Your task to perform on an android device: Find coffee shops on Maps Image 0: 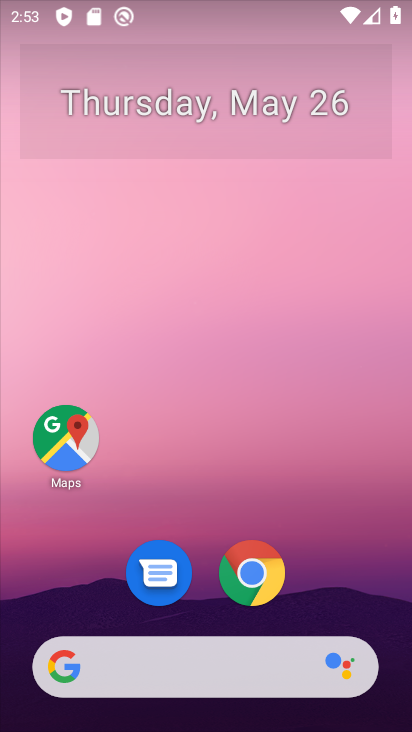
Step 0: click (60, 462)
Your task to perform on an android device: Find coffee shops on Maps Image 1: 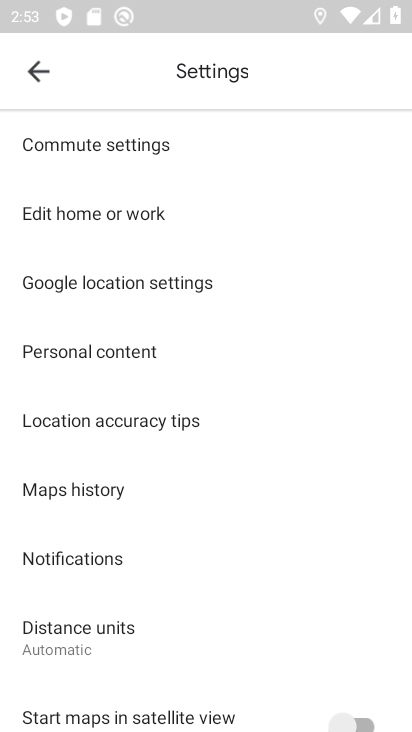
Step 1: click (47, 66)
Your task to perform on an android device: Find coffee shops on Maps Image 2: 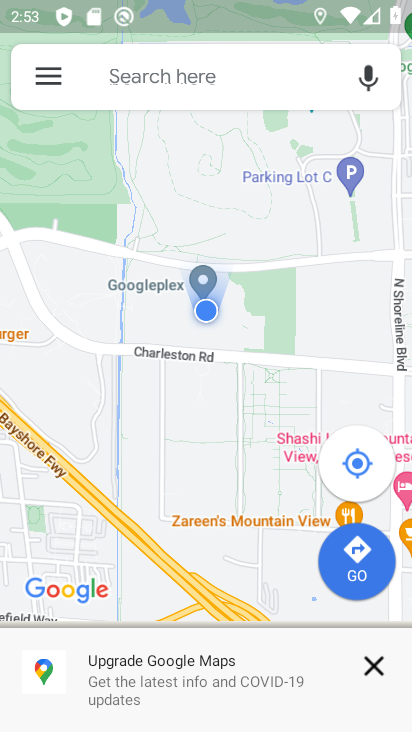
Step 2: click (213, 68)
Your task to perform on an android device: Find coffee shops on Maps Image 3: 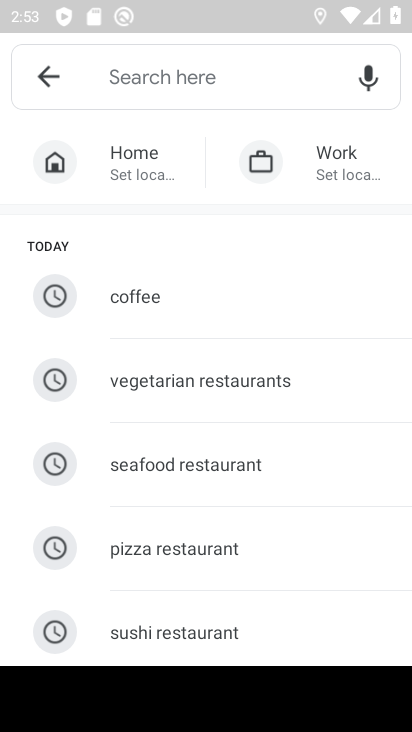
Step 3: click (236, 82)
Your task to perform on an android device: Find coffee shops on Maps Image 4: 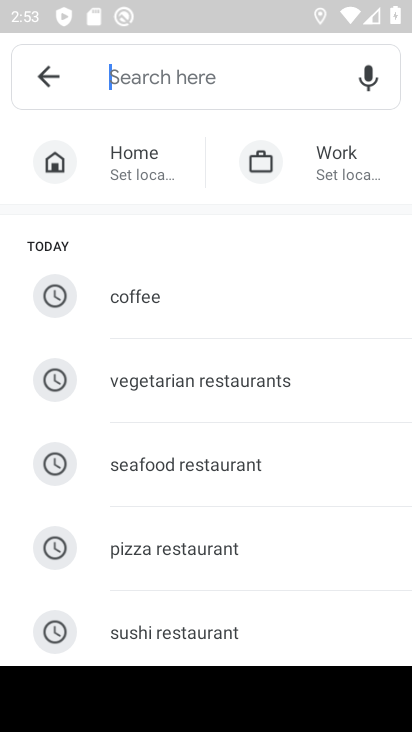
Step 4: type "coffee shops"
Your task to perform on an android device: Find coffee shops on Maps Image 5: 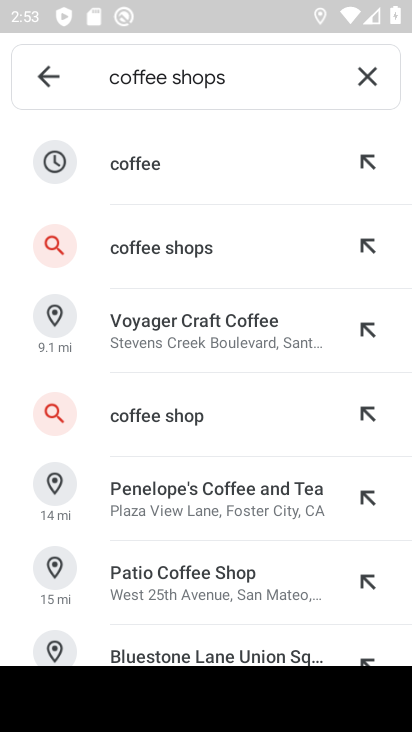
Step 5: click (189, 247)
Your task to perform on an android device: Find coffee shops on Maps Image 6: 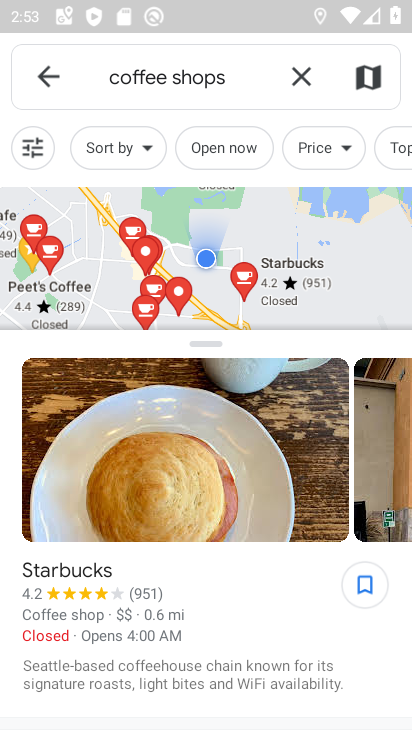
Step 6: task complete